Your task to perform on an android device: Go to Wikipedia Image 0: 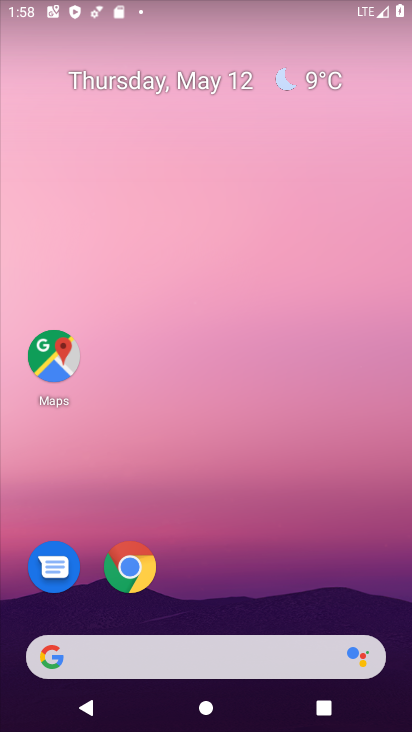
Step 0: drag from (273, 492) to (276, 104)
Your task to perform on an android device: Go to Wikipedia Image 1: 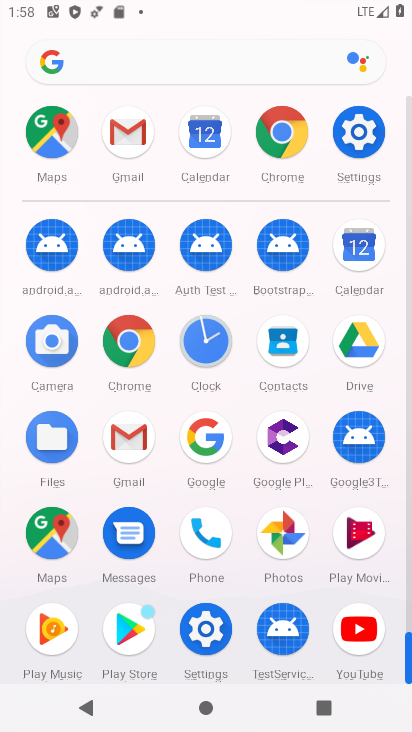
Step 1: click (272, 145)
Your task to perform on an android device: Go to Wikipedia Image 2: 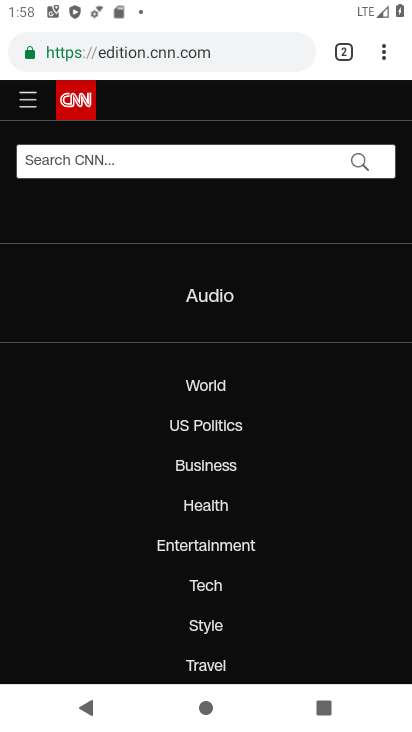
Step 2: click (348, 57)
Your task to perform on an android device: Go to Wikipedia Image 3: 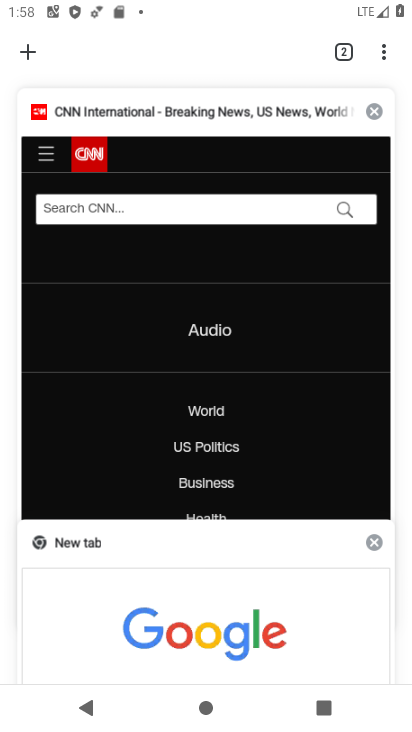
Step 3: click (15, 52)
Your task to perform on an android device: Go to Wikipedia Image 4: 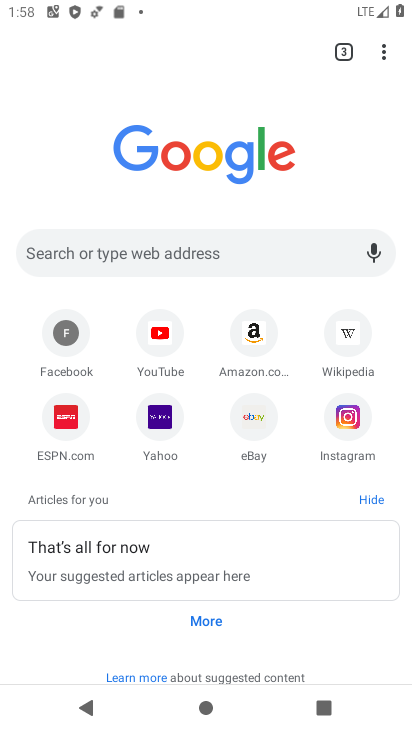
Step 4: click (364, 356)
Your task to perform on an android device: Go to Wikipedia Image 5: 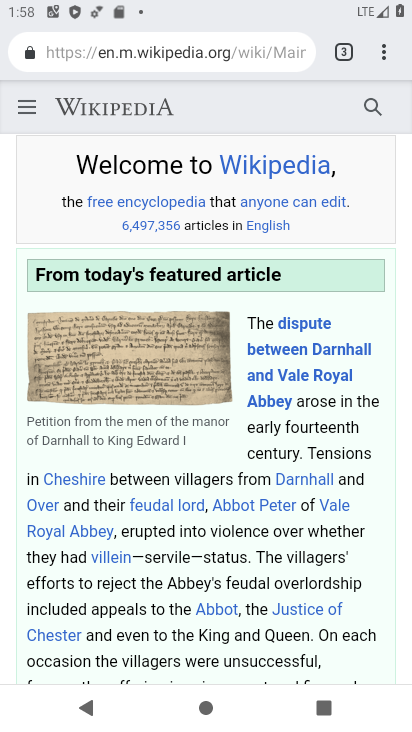
Step 5: task complete